Your task to perform on an android device: What's the weather? Image 0: 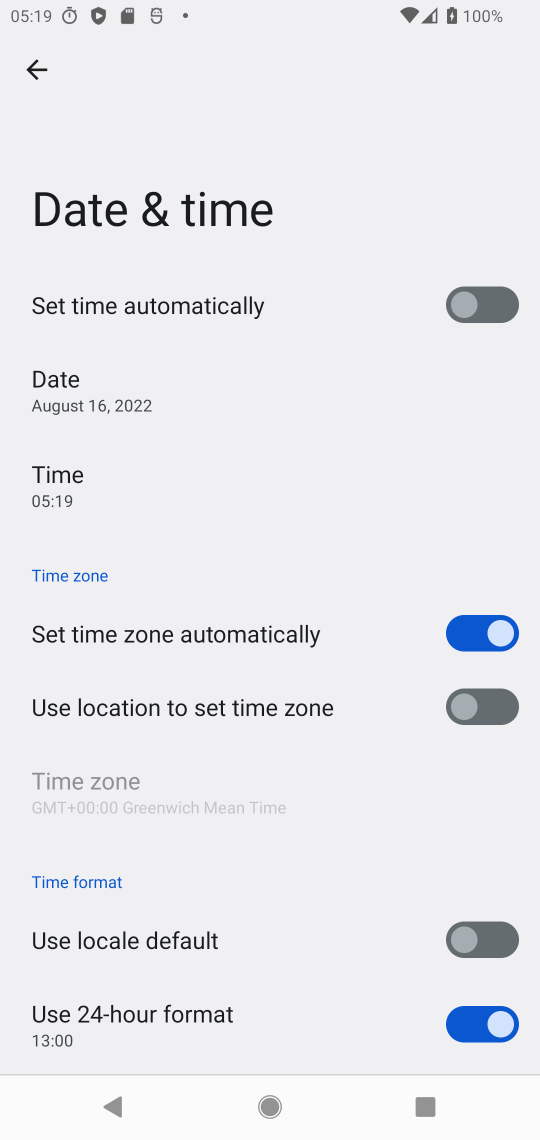
Step 0: press home button
Your task to perform on an android device: What's the weather? Image 1: 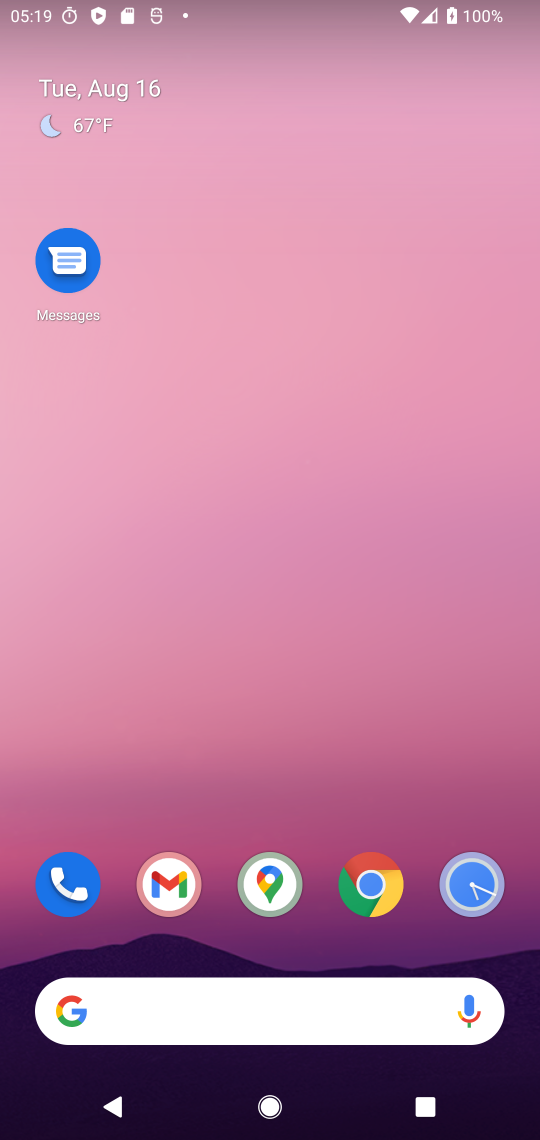
Step 1: click (151, 1001)
Your task to perform on an android device: What's the weather? Image 2: 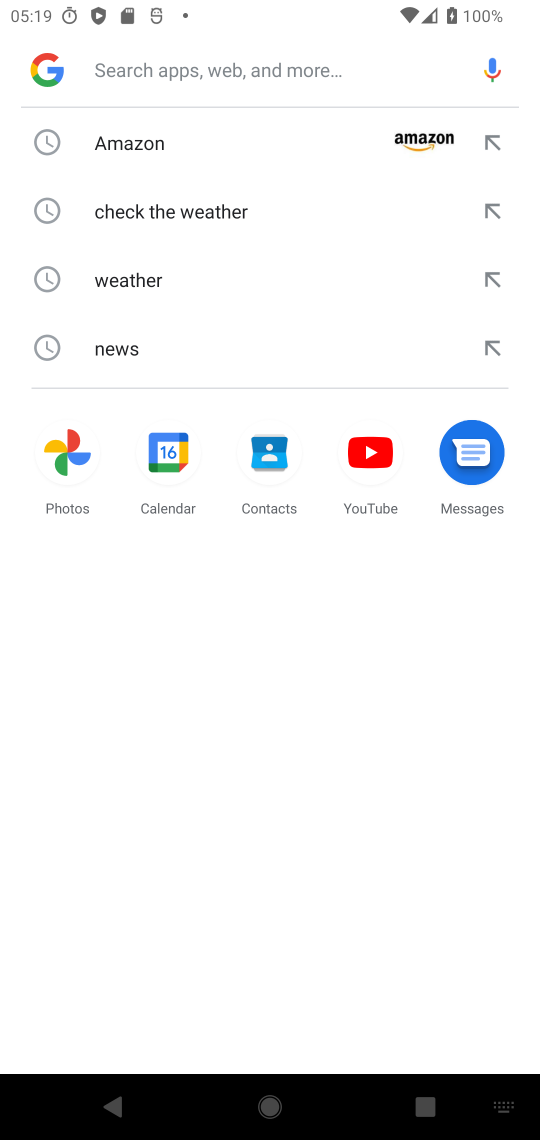
Step 2: type "What's the weather?"
Your task to perform on an android device: What's the weather? Image 3: 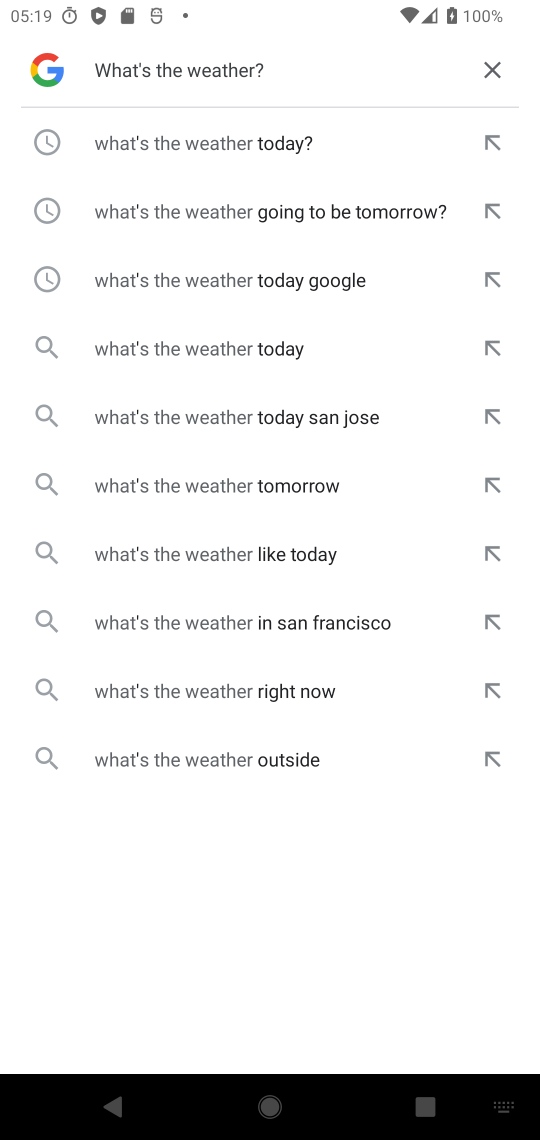
Step 3: type ""
Your task to perform on an android device: What's the weather? Image 4: 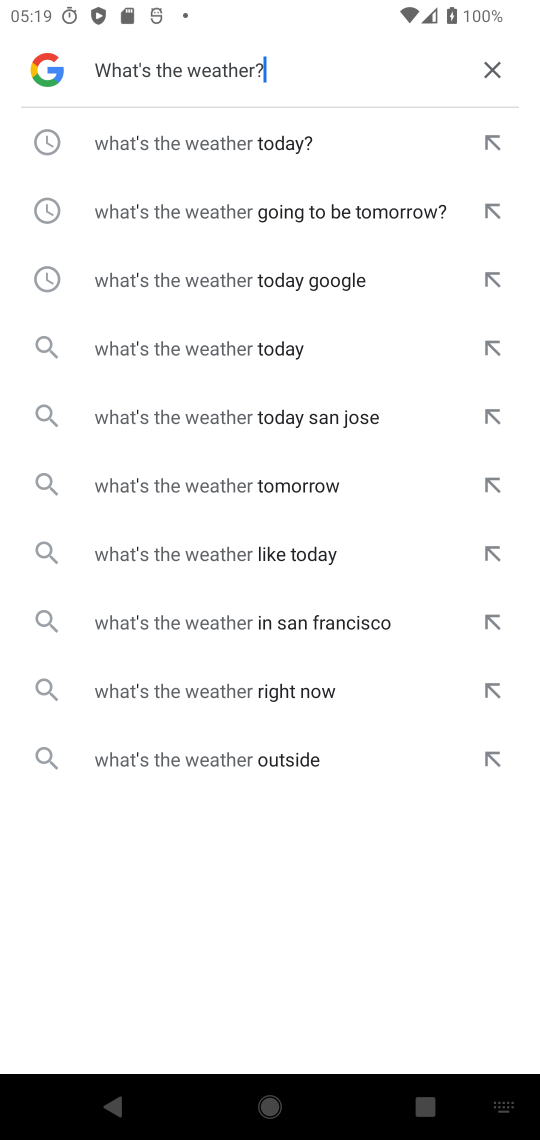
Step 4: type ""
Your task to perform on an android device: What's the weather? Image 5: 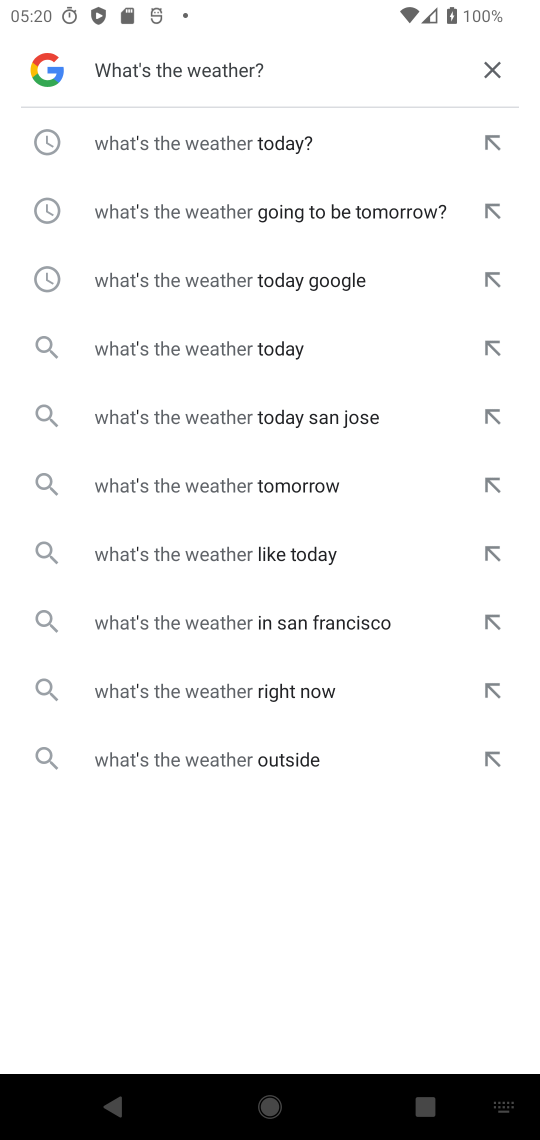
Step 5: task complete